Your task to perform on an android device: show emergency info Image 0: 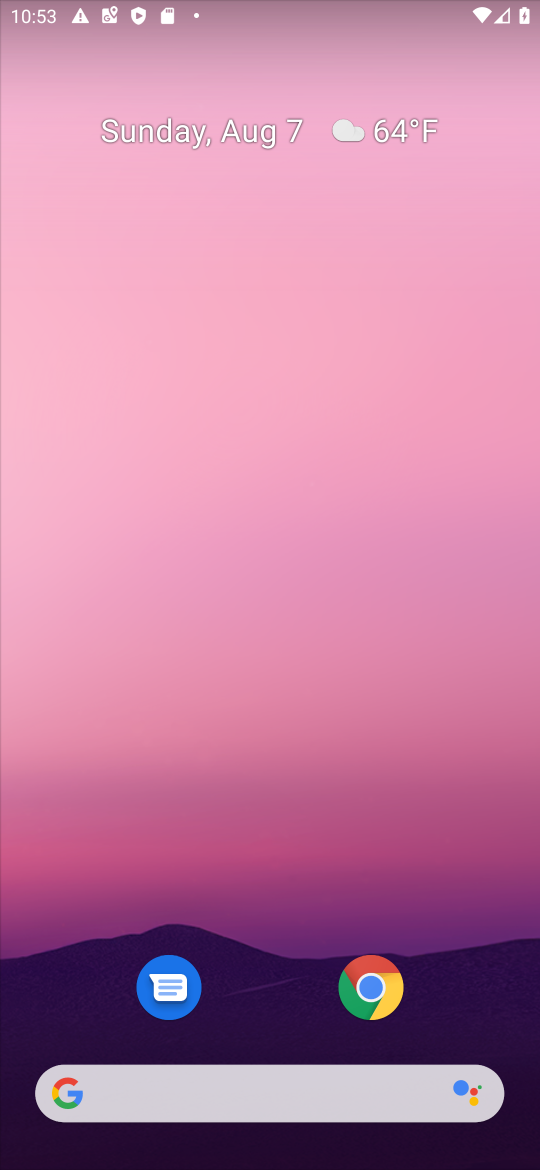
Step 0: drag from (260, 943) to (219, 215)
Your task to perform on an android device: show emergency info Image 1: 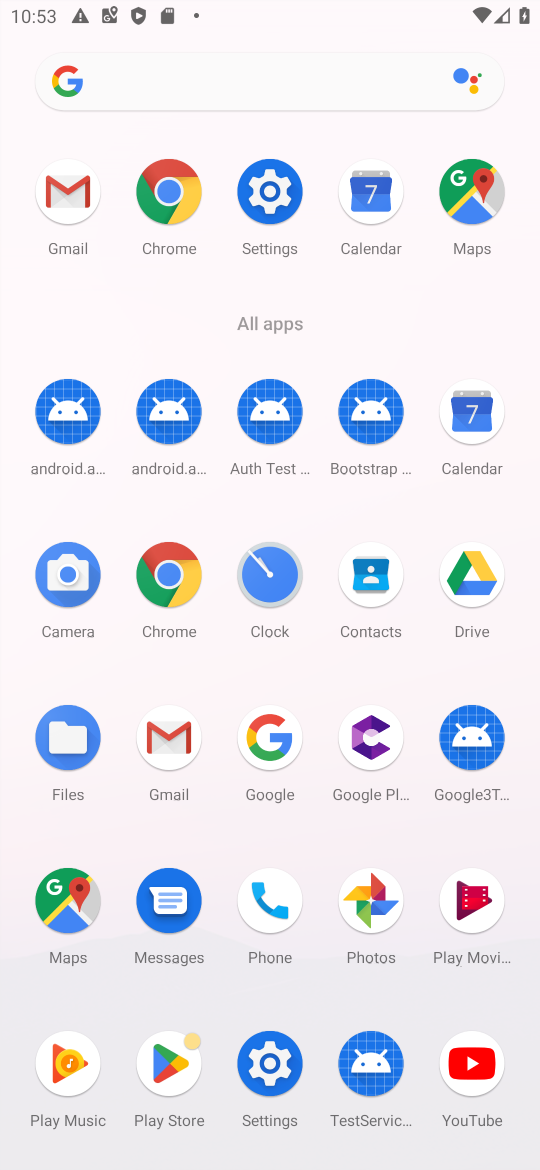
Step 1: click (262, 1075)
Your task to perform on an android device: show emergency info Image 2: 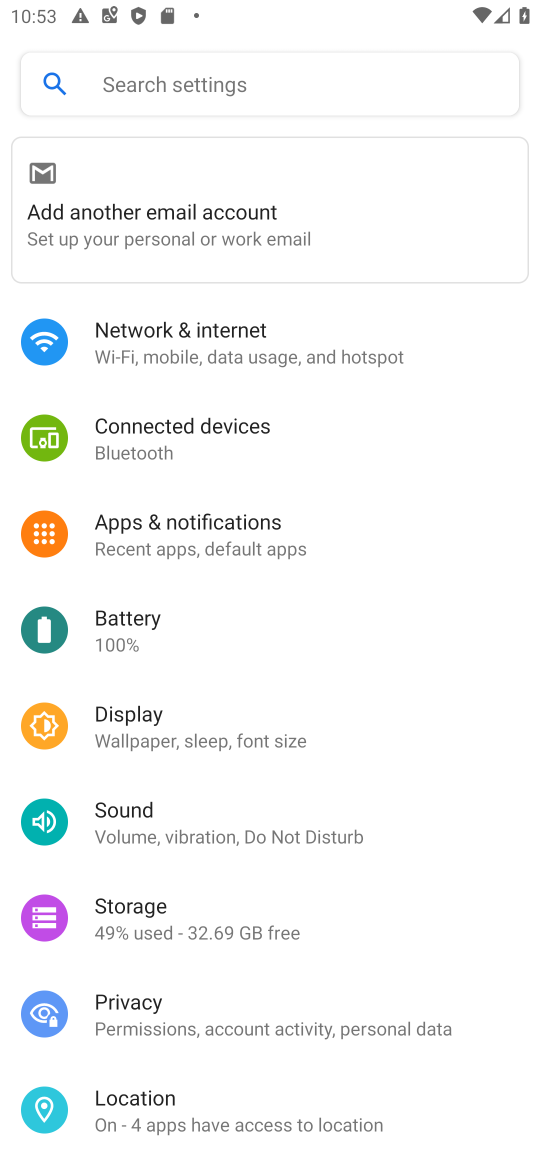
Step 2: drag from (224, 1104) to (163, 361)
Your task to perform on an android device: show emergency info Image 3: 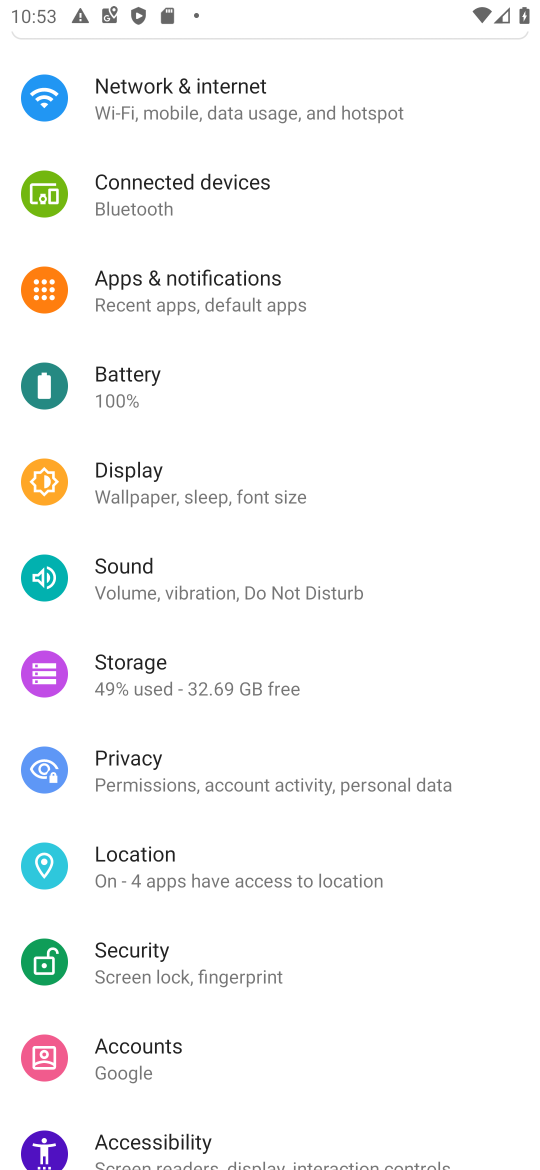
Step 3: drag from (165, 1039) to (121, 429)
Your task to perform on an android device: show emergency info Image 4: 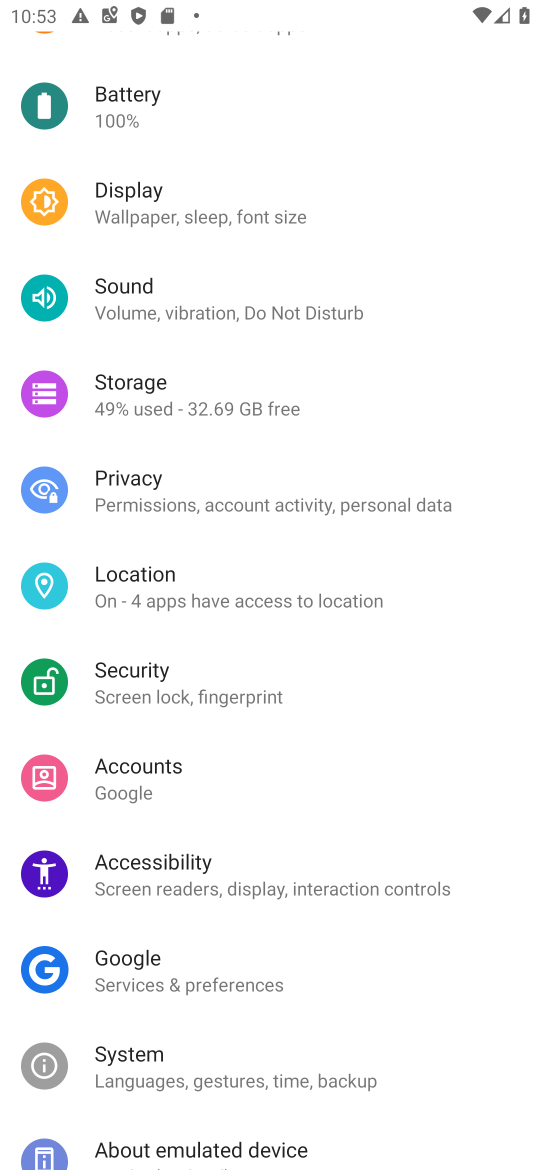
Step 4: click (152, 1144)
Your task to perform on an android device: show emergency info Image 5: 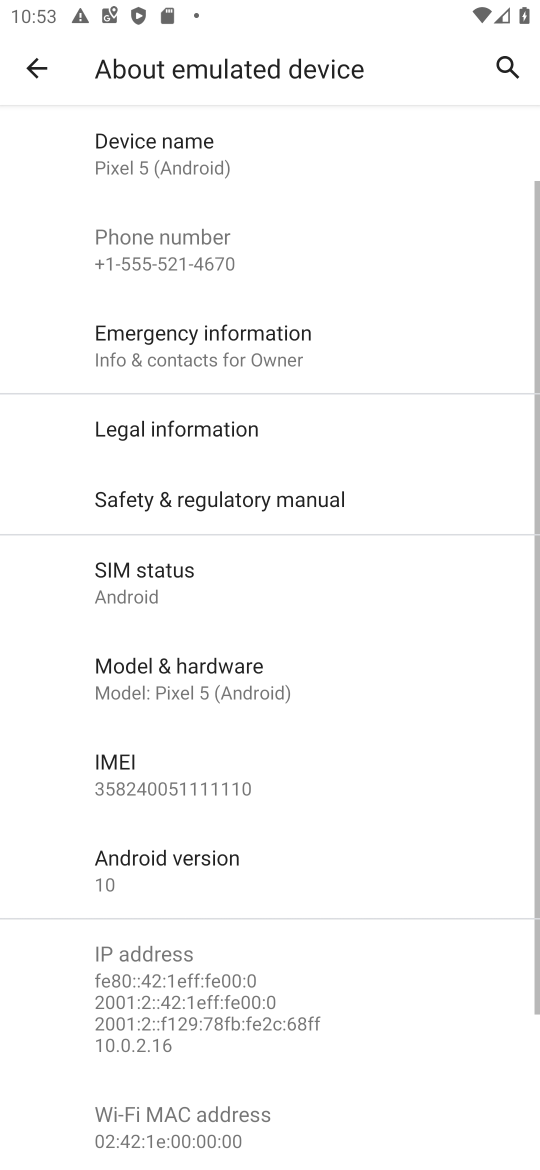
Step 5: click (192, 360)
Your task to perform on an android device: show emergency info Image 6: 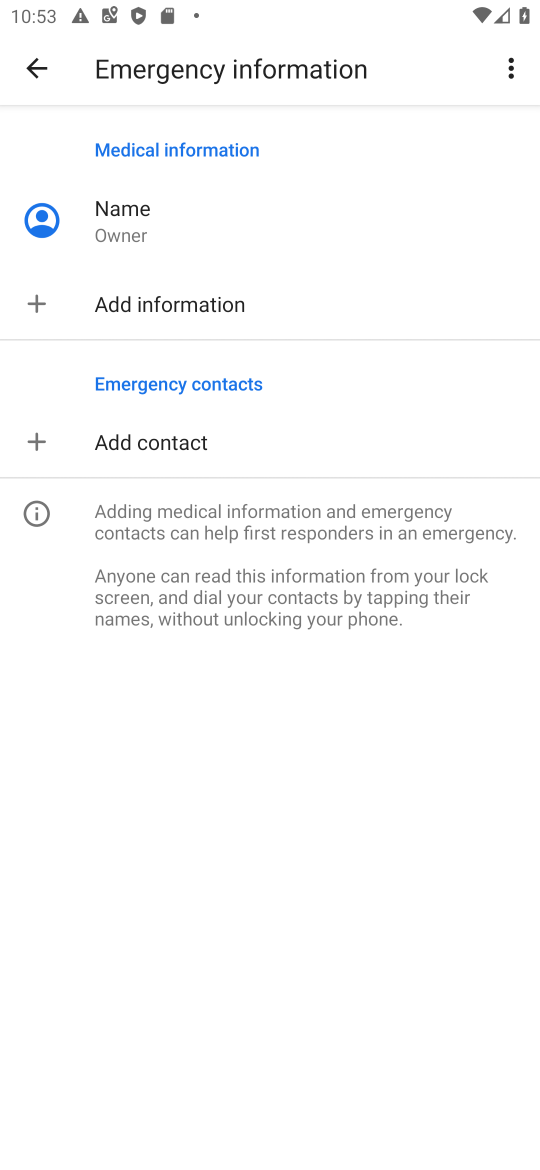
Step 6: task complete